Your task to perform on an android device: Open maps Image 0: 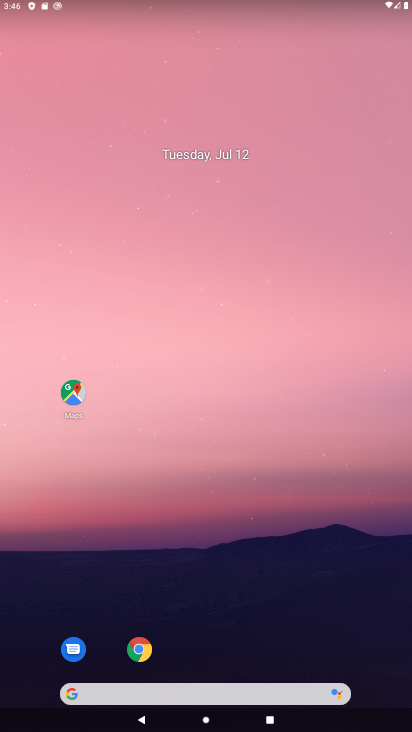
Step 0: press home button
Your task to perform on an android device: Open maps Image 1: 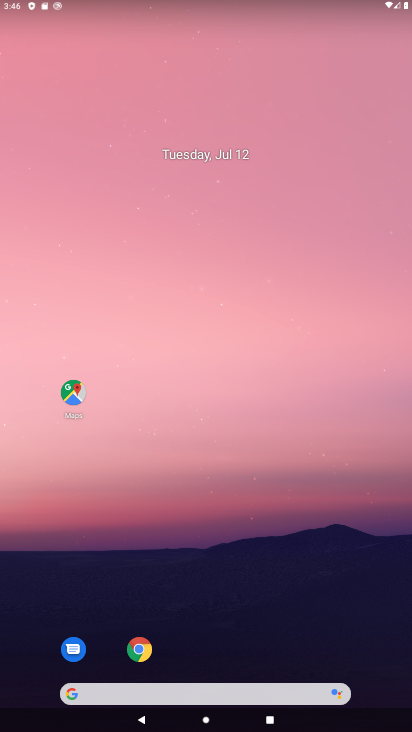
Step 1: drag from (219, 662) to (237, 31)
Your task to perform on an android device: Open maps Image 2: 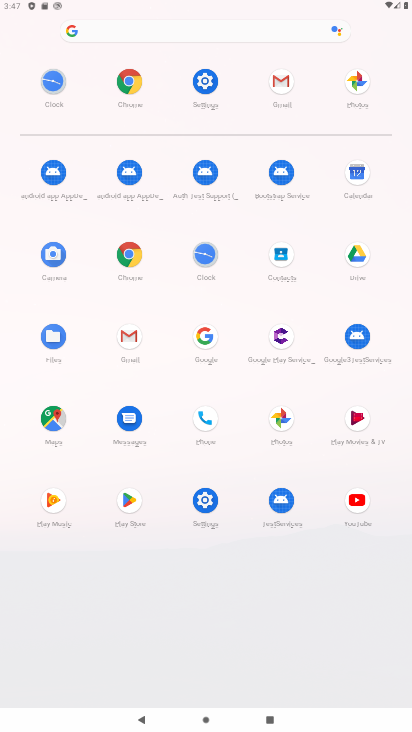
Step 2: click (50, 417)
Your task to perform on an android device: Open maps Image 3: 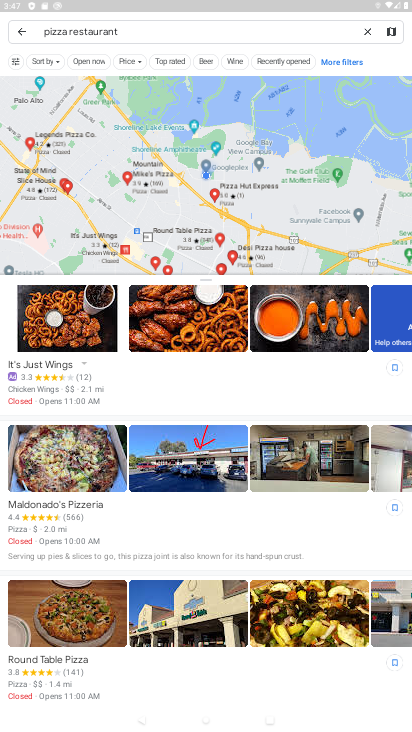
Step 3: click (21, 31)
Your task to perform on an android device: Open maps Image 4: 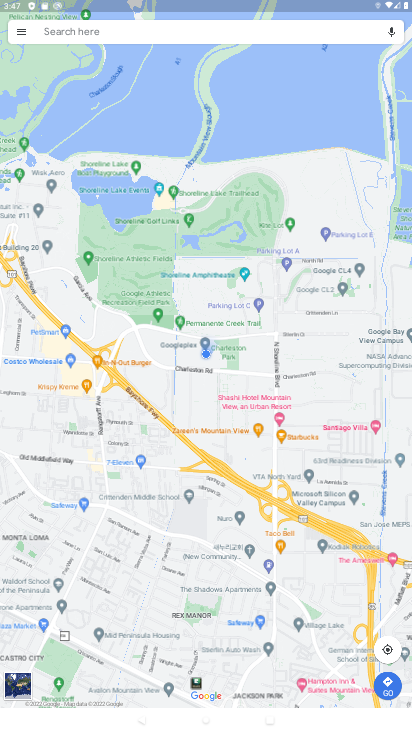
Step 4: task complete